Your task to perform on an android device: change text size in settings app Image 0: 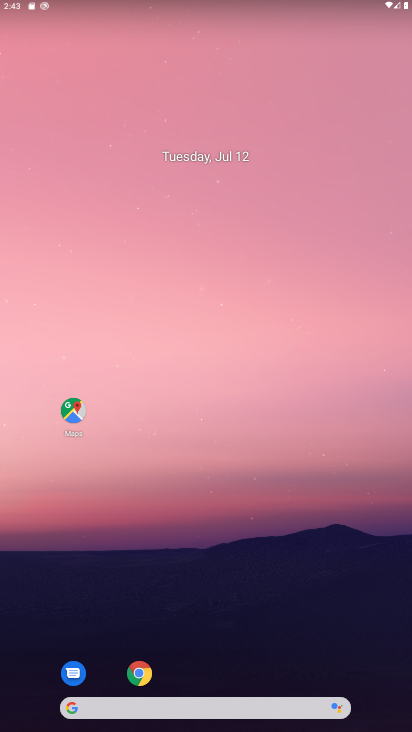
Step 0: drag from (270, 654) to (244, 222)
Your task to perform on an android device: change text size in settings app Image 1: 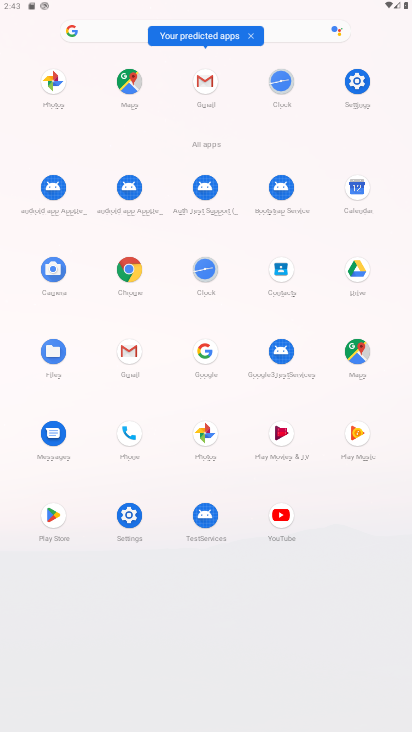
Step 1: click (358, 83)
Your task to perform on an android device: change text size in settings app Image 2: 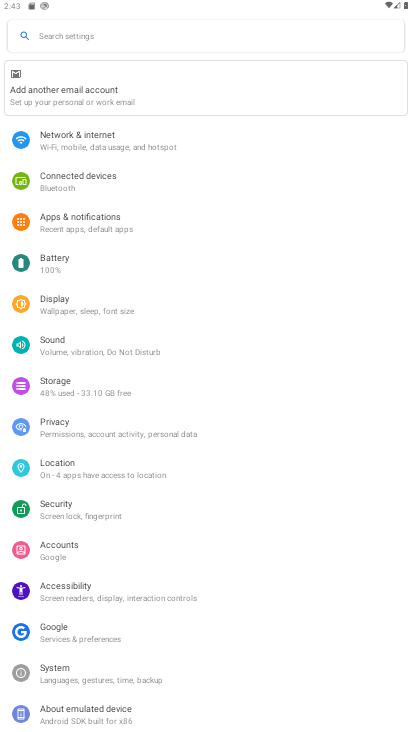
Step 2: click (111, 303)
Your task to perform on an android device: change text size in settings app Image 3: 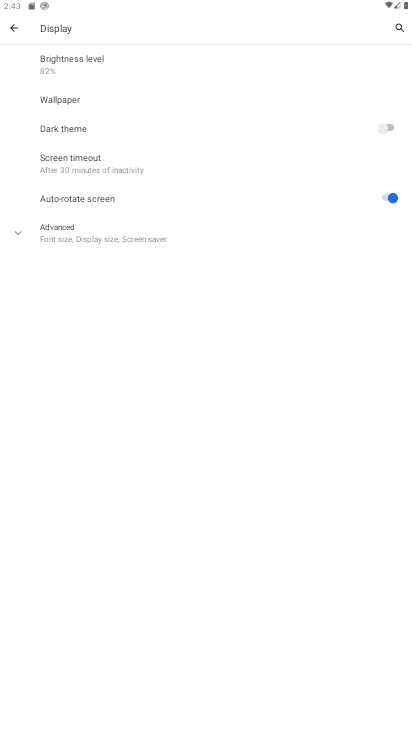
Step 3: click (182, 235)
Your task to perform on an android device: change text size in settings app Image 4: 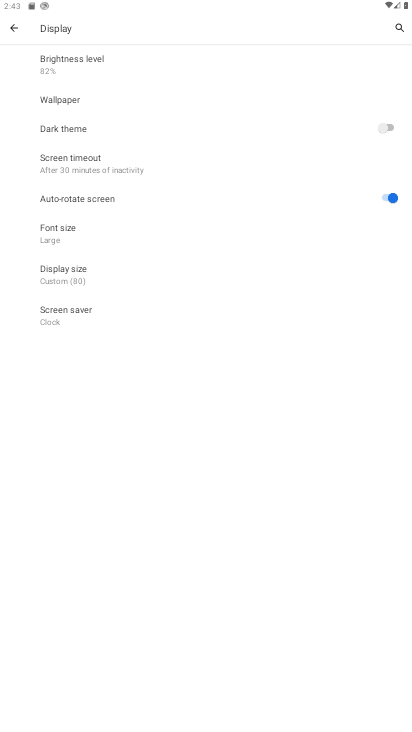
Step 4: click (159, 238)
Your task to perform on an android device: change text size in settings app Image 5: 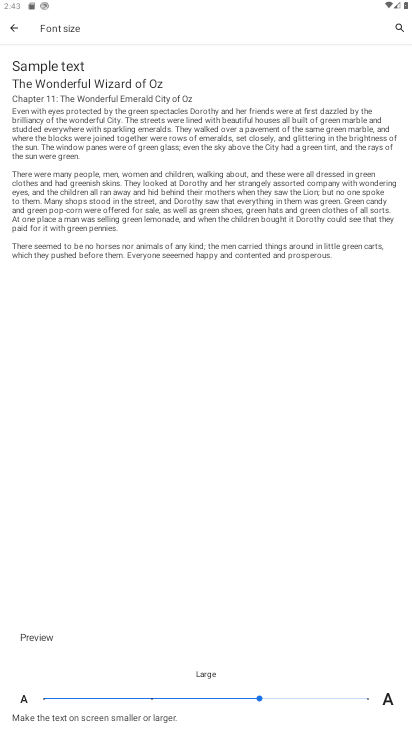
Step 5: click (366, 696)
Your task to perform on an android device: change text size in settings app Image 6: 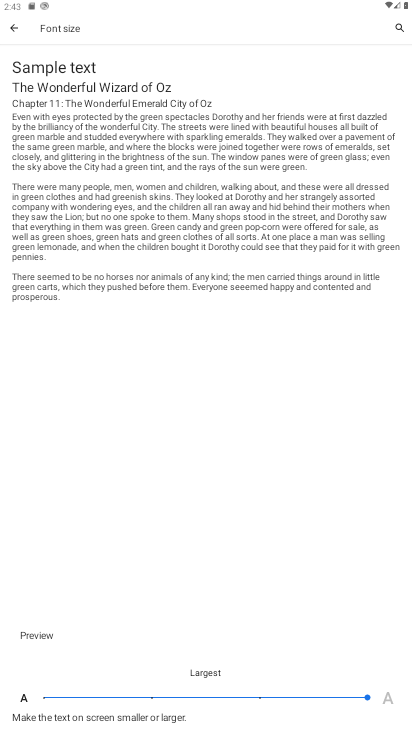
Step 6: task complete